Your task to perform on an android device: What is the news today? Image 0: 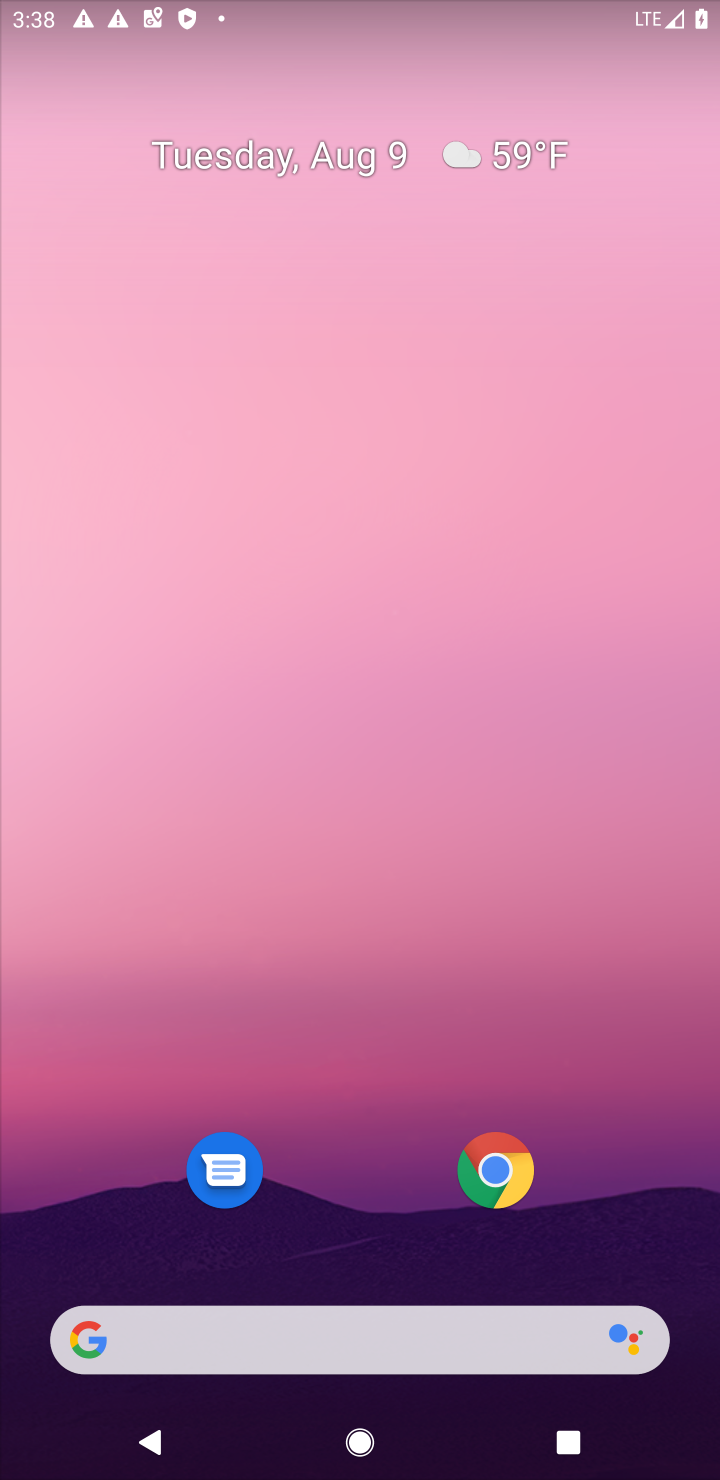
Step 0: click (75, 1336)
Your task to perform on an android device: What is the news today? Image 1: 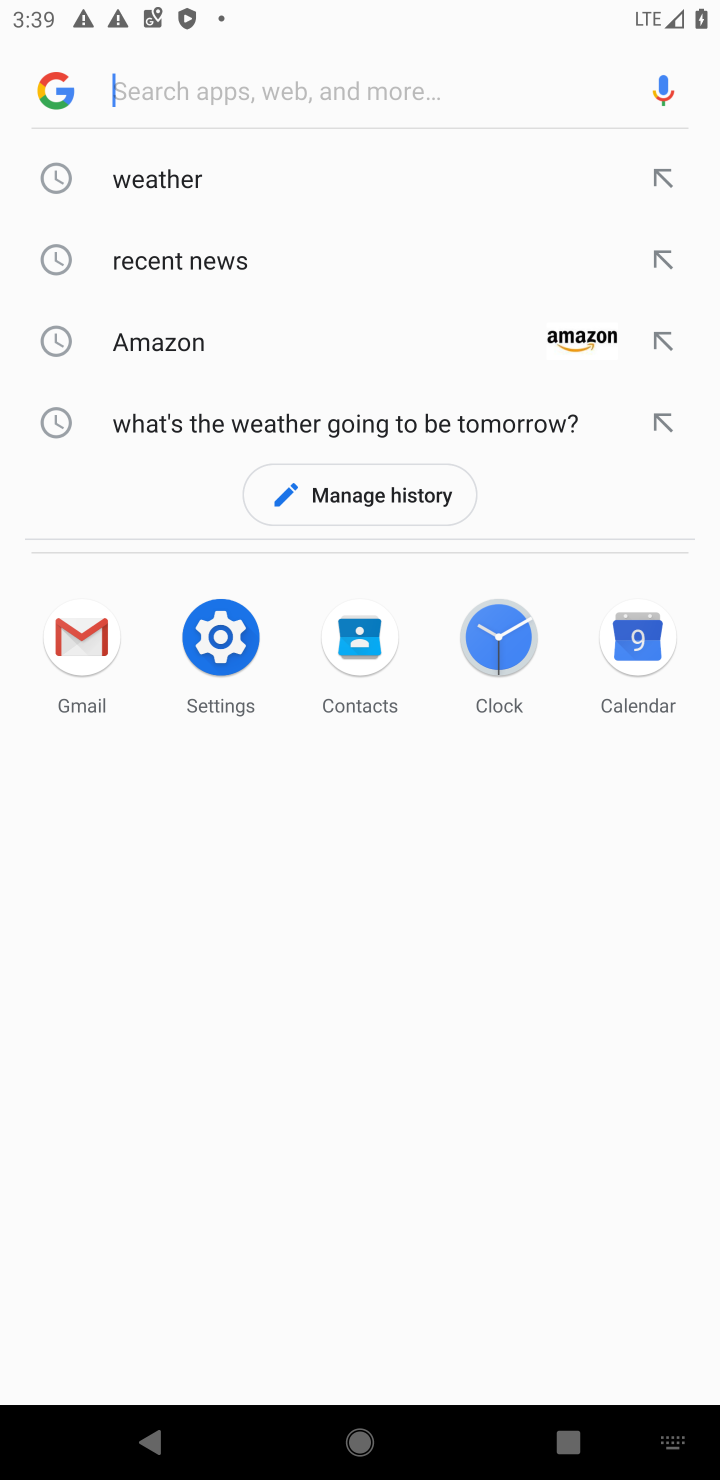
Step 1: type "news today?"
Your task to perform on an android device: What is the news today? Image 2: 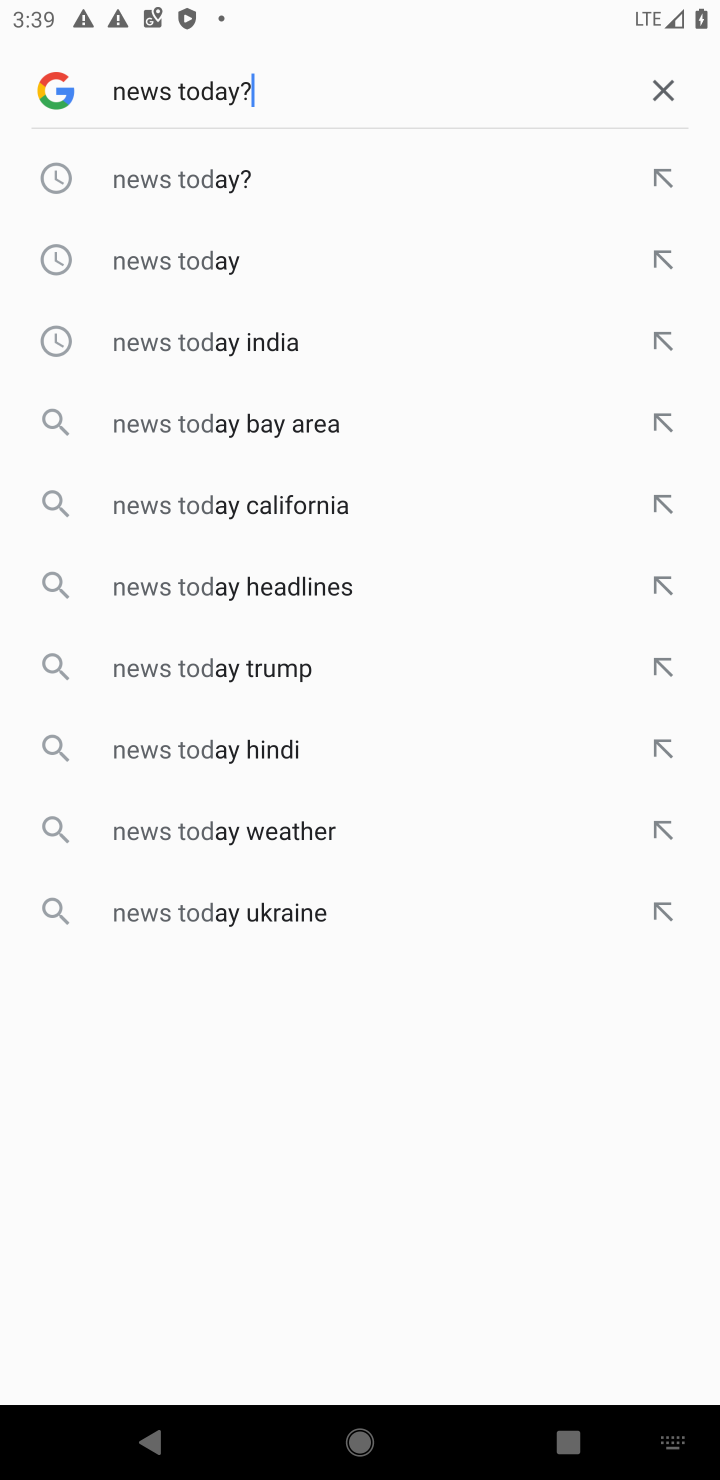
Step 2: press enter
Your task to perform on an android device: What is the news today? Image 3: 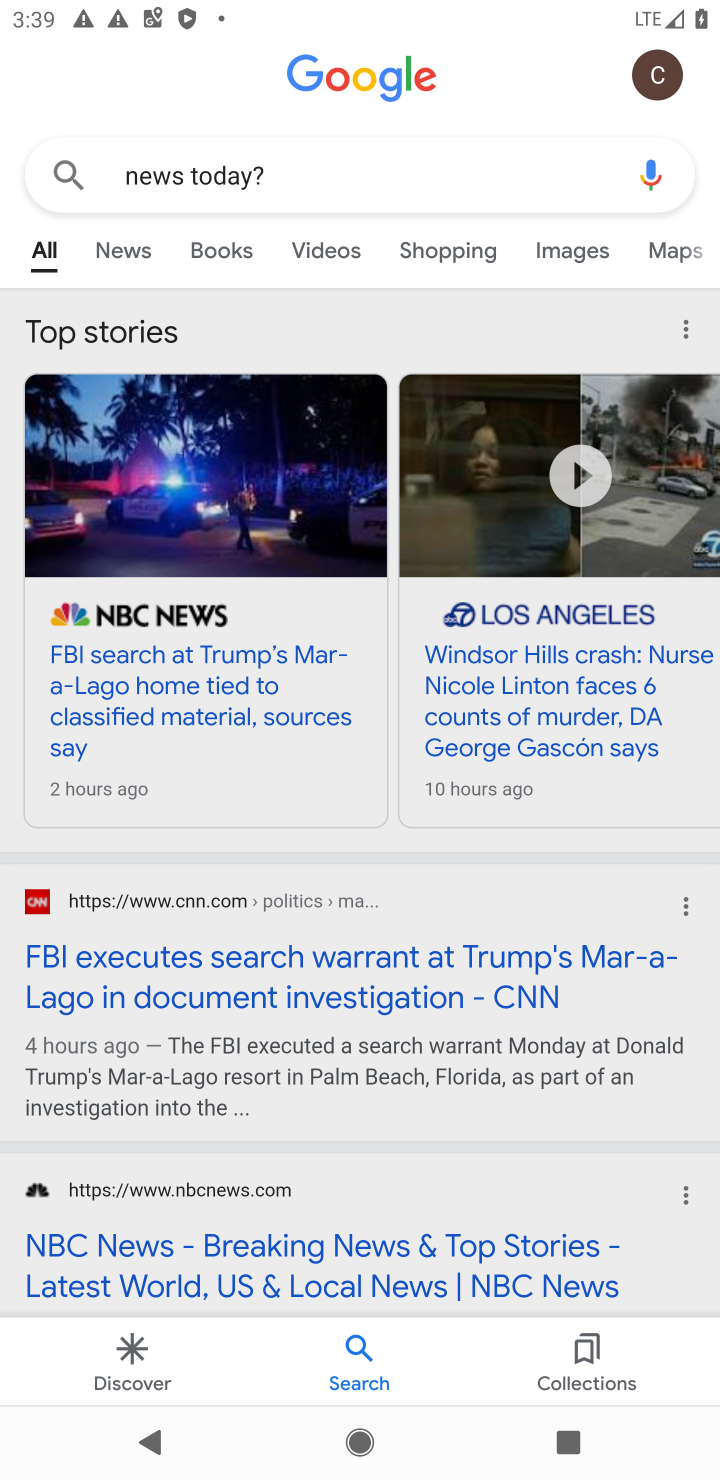
Step 3: task complete